Your task to perform on an android device: Go to ESPN.com Image 0: 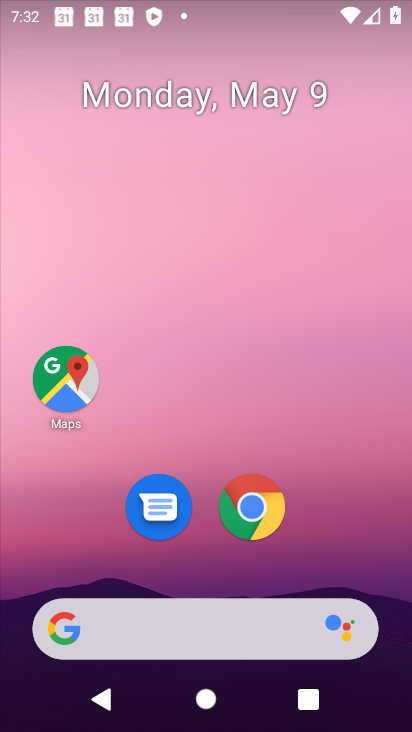
Step 0: drag from (265, 662) to (253, 176)
Your task to perform on an android device: Go to ESPN.com Image 1: 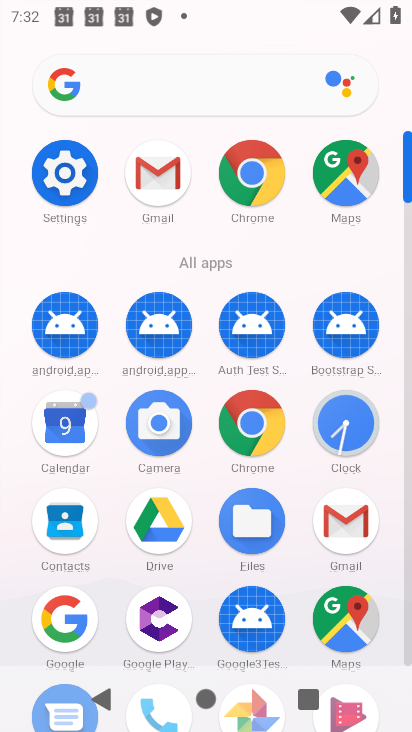
Step 1: click (272, 180)
Your task to perform on an android device: Go to ESPN.com Image 2: 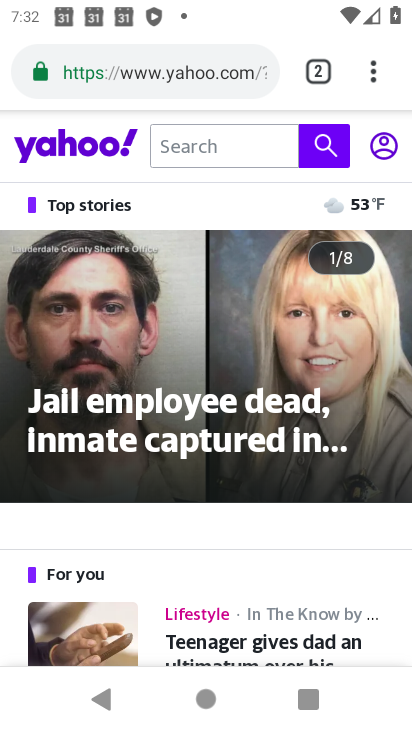
Step 2: click (315, 70)
Your task to perform on an android device: Go to ESPN.com Image 3: 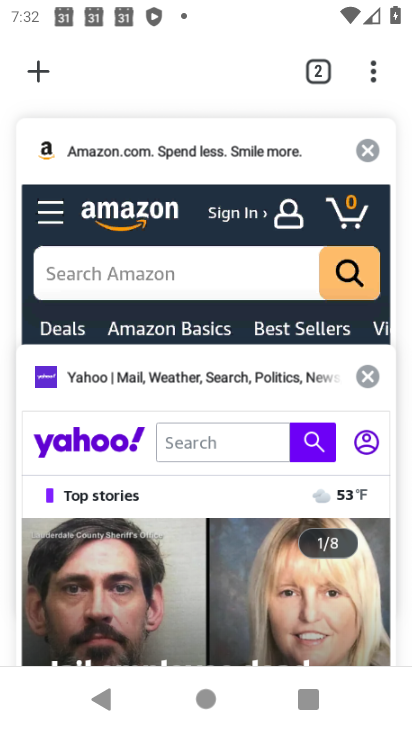
Step 3: click (53, 62)
Your task to perform on an android device: Go to ESPN.com Image 4: 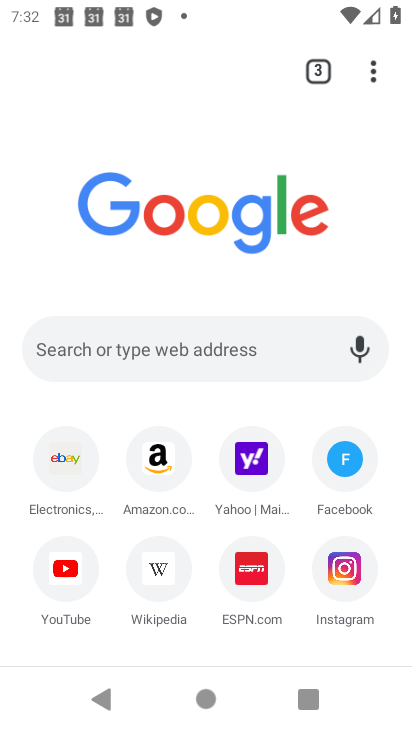
Step 4: click (254, 574)
Your task to perform on an android device: Go to ESPN.com Image 5: 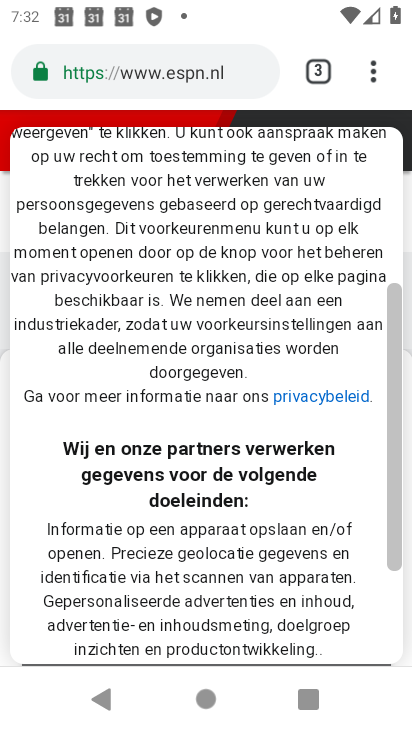
Step 5: task complete